Your task to perform on an android device: toggle show notifications on the lock screen Image 0: 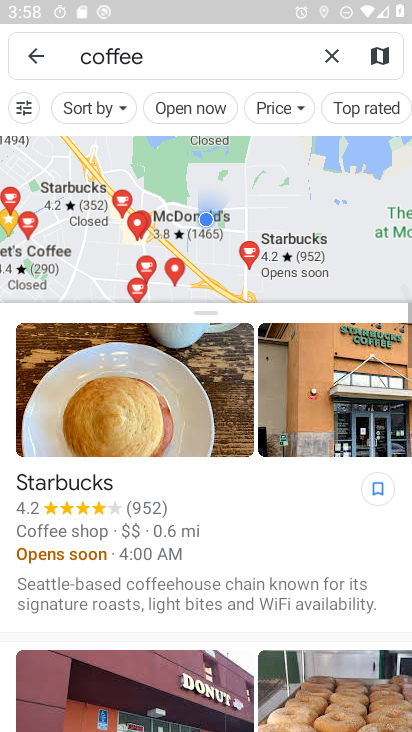
Step 0: press home button
Your task to perform on an android device: toggle show notifications on the lock screen Image 1: 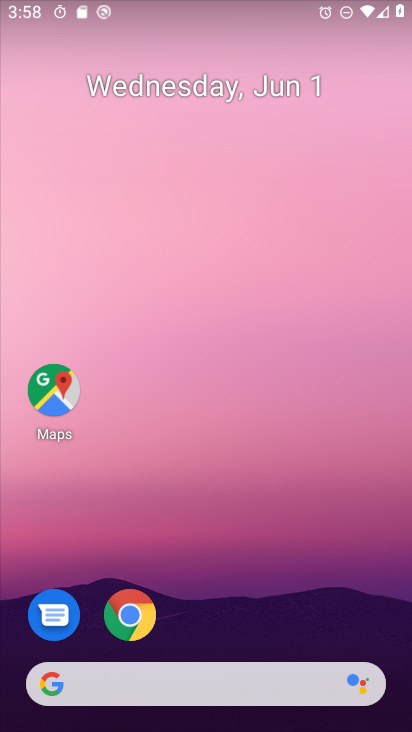
Step 1: drag from (217, 672) to (219, 9)
Your task to perform on an android device: toggle show notifications on the lock screen Image 2: 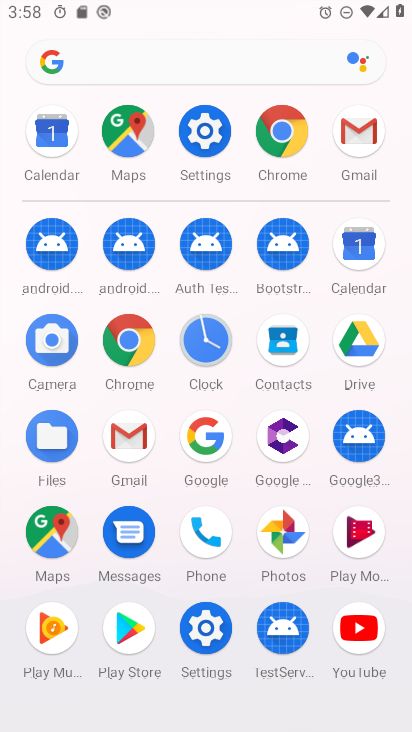
Step 2: click (217, 140)
Your task to perform on an android device: toggle show notifications on the lock screen Image 3: 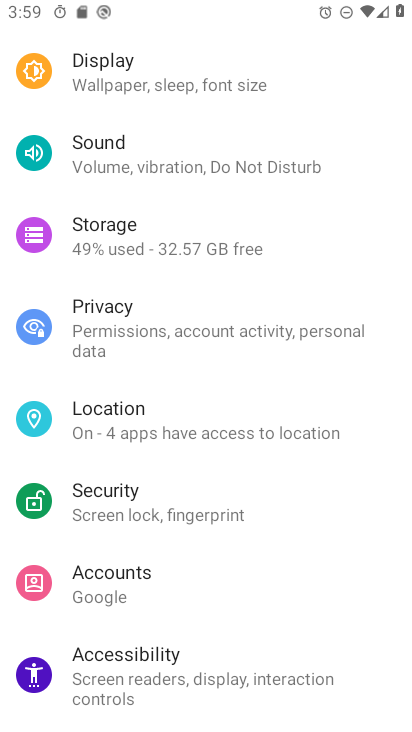
Step 3: drag from (159, 156) to (107, 712)
Your task to perform on an android device: toggle show notifications on the lock screen Image 4: 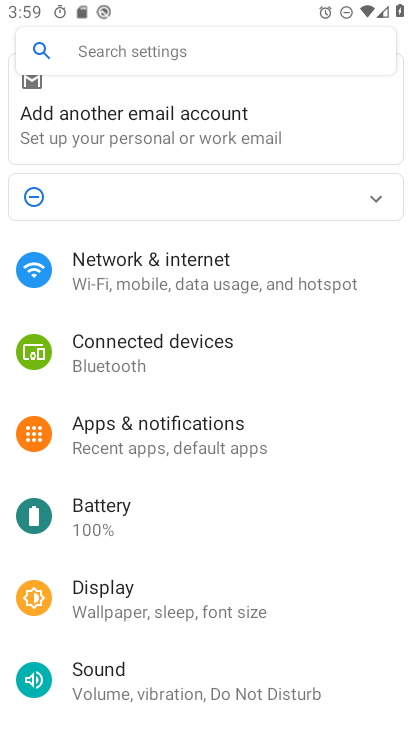
Step 4: click (128, 428)
Your task to perform on an android device: toggle show notifications on the lock screen Image 5: 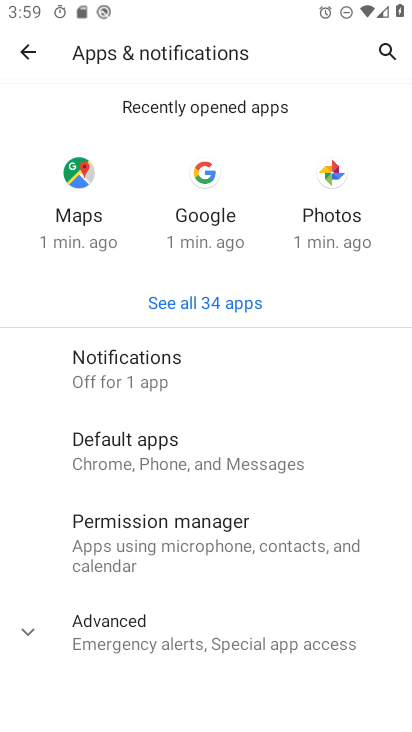
Step 5: click (153, 381)
Your task to perform on an android device: toggle show notifications on the lock screen Image 6: 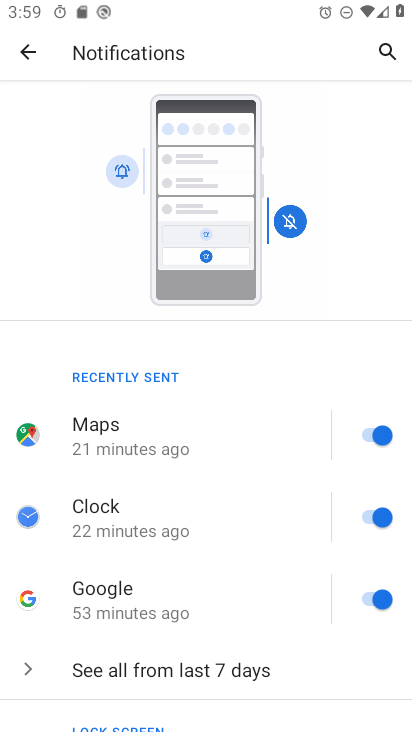
Step 6: drag from (226, 697) to (227, 261)
Your task to perform on an android device: toggle show notifications on the lock screen Image 7: 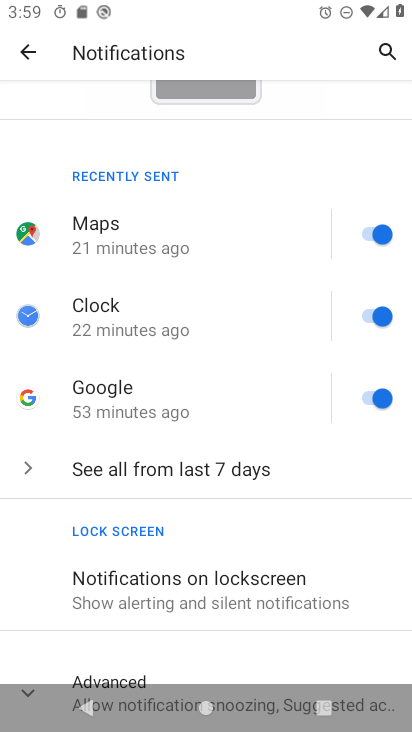
Step 7: click (200, 572)
Your task to perform on an android device: toggle show notifications on the lock screen Image 8: 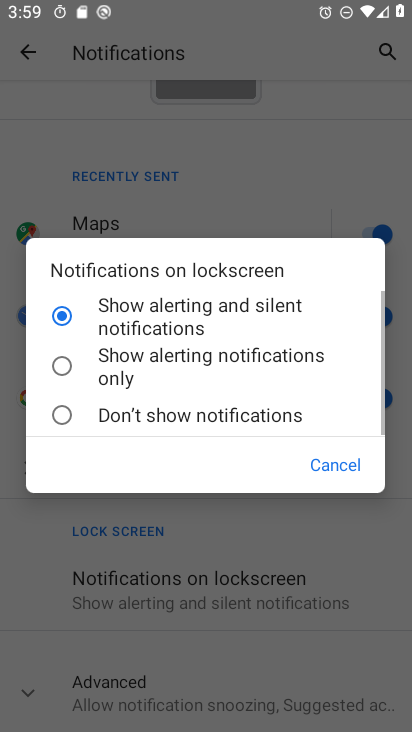
Step 8: click (62, 361)
Your task to perform on an android device: toggle show notifications on the lock screen Image 9: 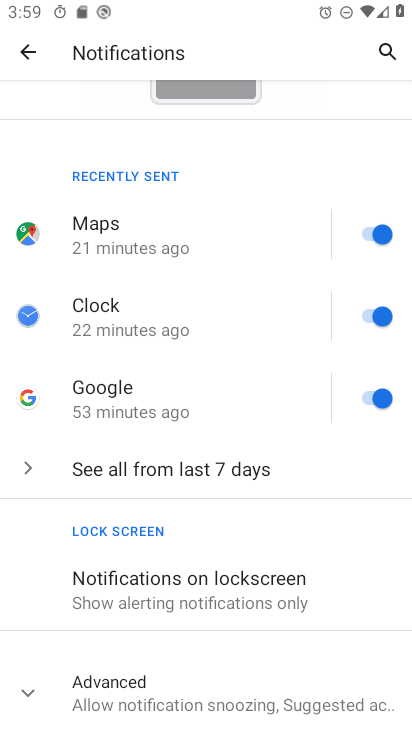
Step 9: task complete